Your task to perform on an android device: turn on translation in the chrome app Image 0: 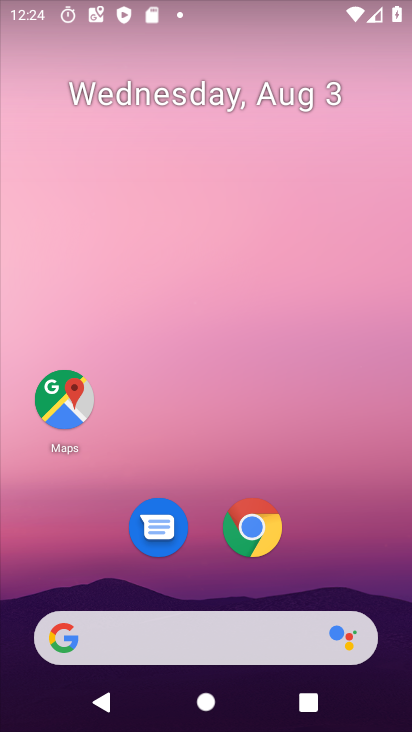
Step 0: click (255, 532)
Your task to perform on an android device: turn on translation in the chrome app Image 1: 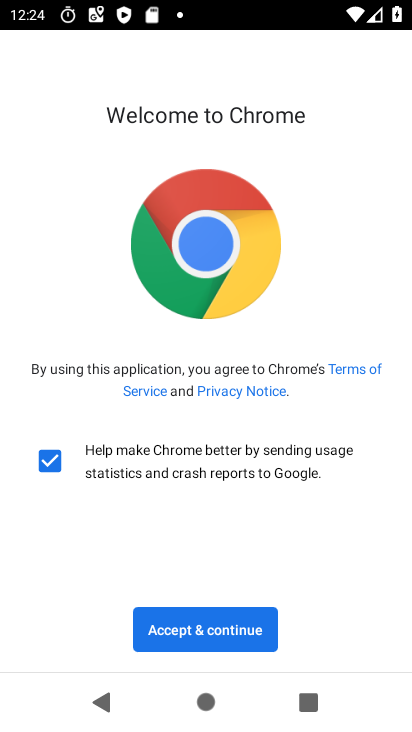
Step 1: click (205, 620)
Your task to perform on an android device: turn on translation in the chrome app Image 2: 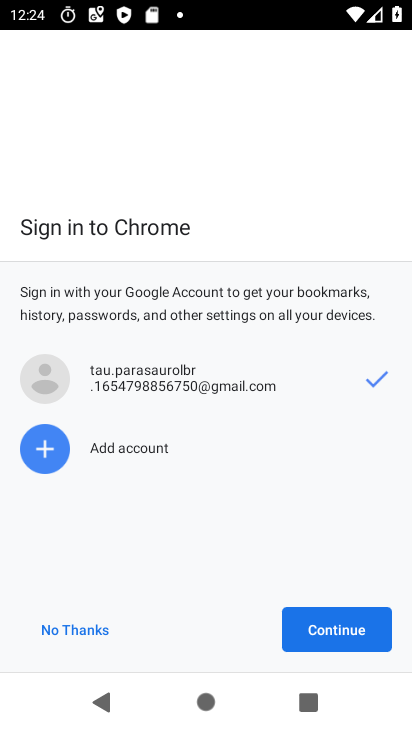
Step 2: click (348, 629)
Your task to perform on an android device: turn on translation in the chrome app Image 3: 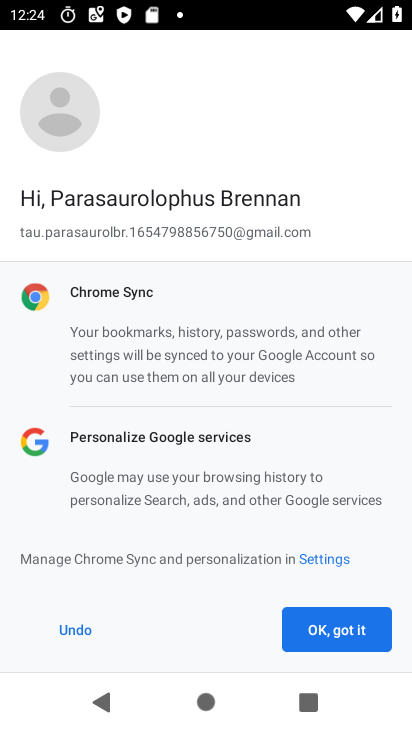
Step 3: click (348, 629)
Your task to perform on an android device: turn on translation in the chrome app Image 4: 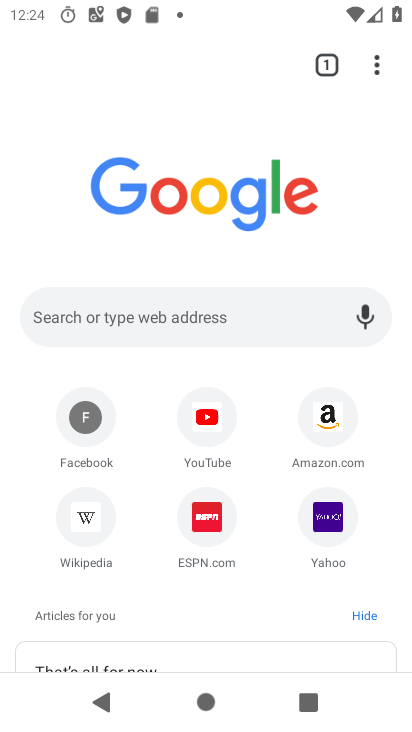
Step 4: click (380, 66)
Your task to perform on an android device: turn on translation in the chrome app Image 5: 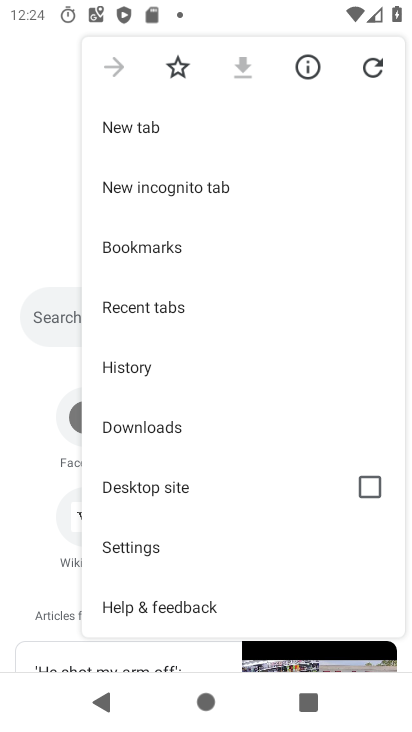
Step 5: click (150, 556)
Your task to perform on an android device: turn on translation in the chrome app Image 6: 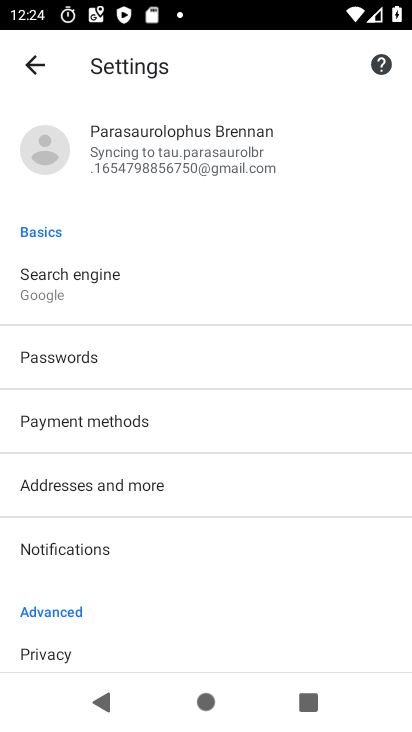
Step 6: drag from (115, 556) to (114, 244)
Your task to perform on an android device: turn on translation in the chrome app Image 7: 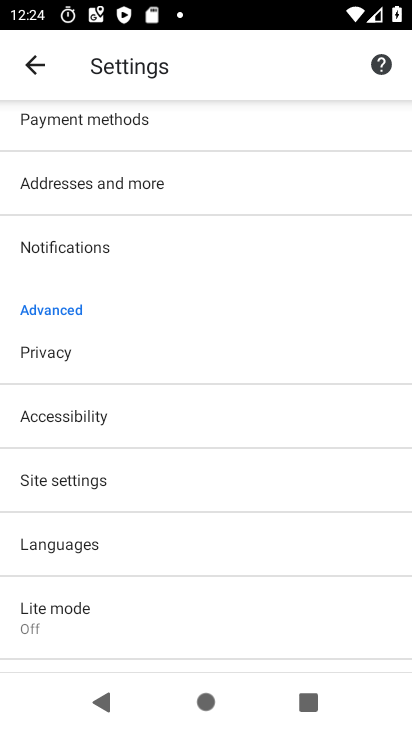
Step 7: click (81, 547)
Your task to perform on an android device: turn on translation in the chrome app Image 8: 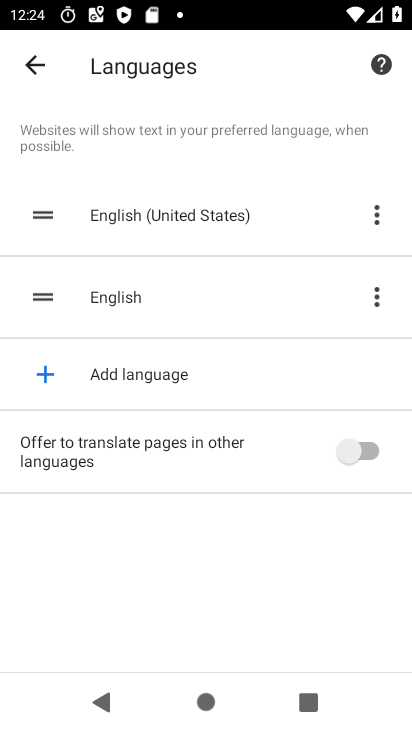
Step 8: click (388, 446)
Your task to perform on an android device: turn on translation in the chrome app Image 9: 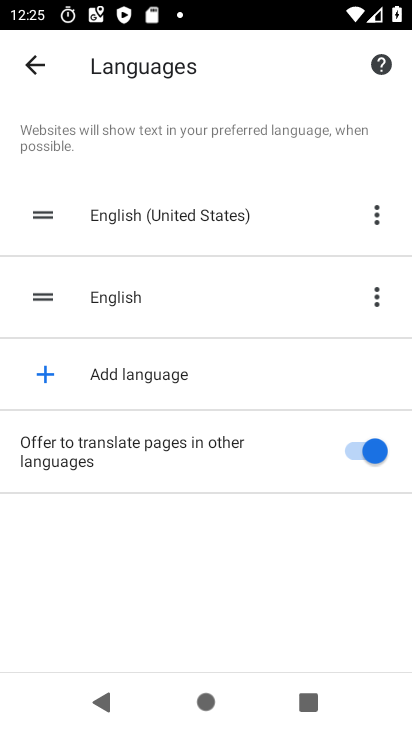
Step 9: task complete